Your task to perform on an android device: turn on location history Image 0: 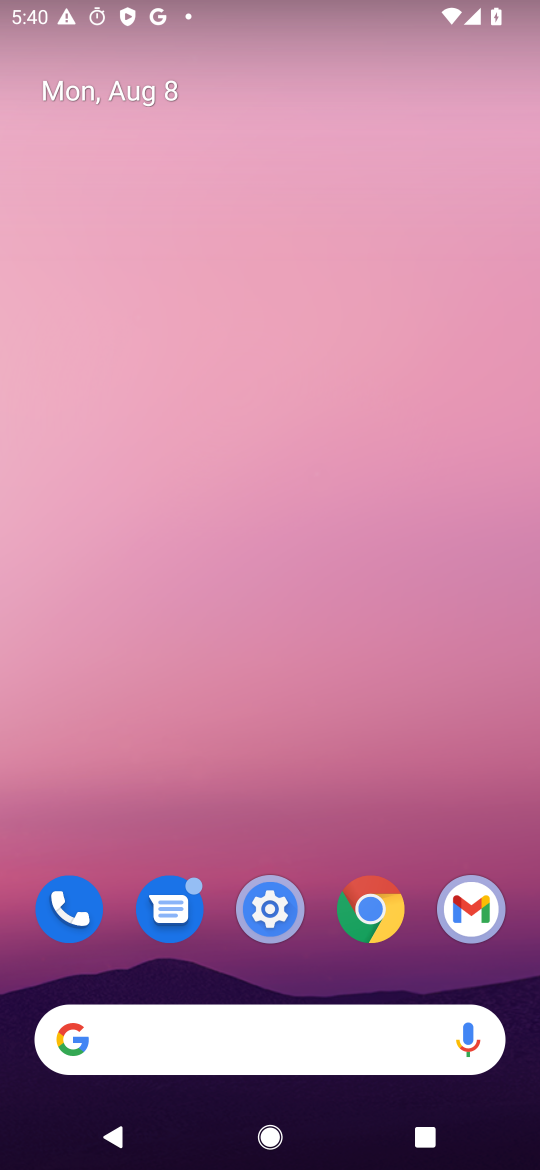
Step 0: click (275, 920)
Your task to perform on an android device: turn on location history Image 1: 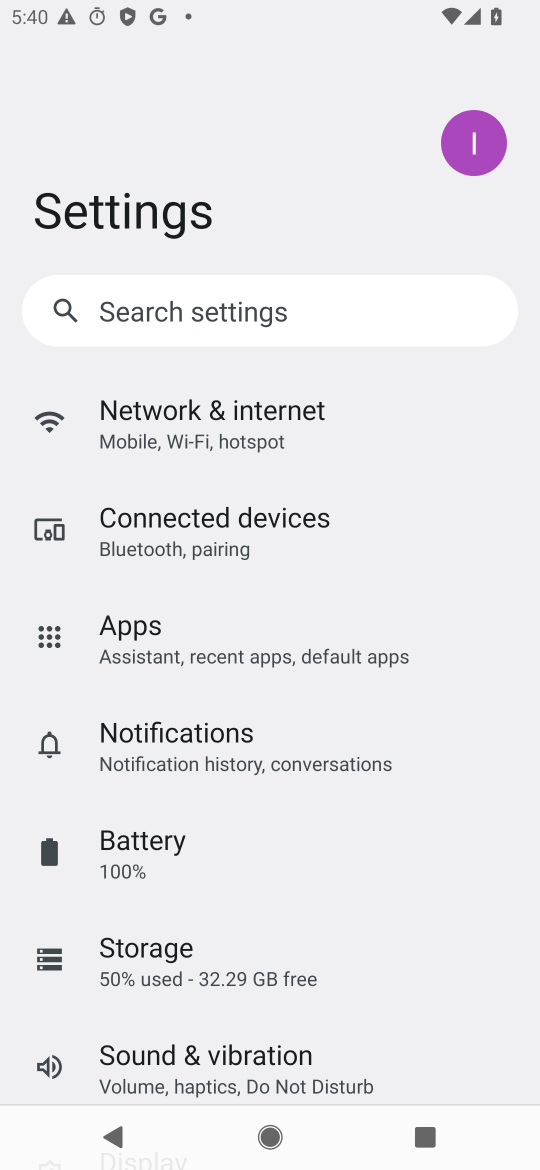
Step 1: drag from (254, 1019) to (366, 343)
Your task to perform on an android device: turn on location history Image 2: 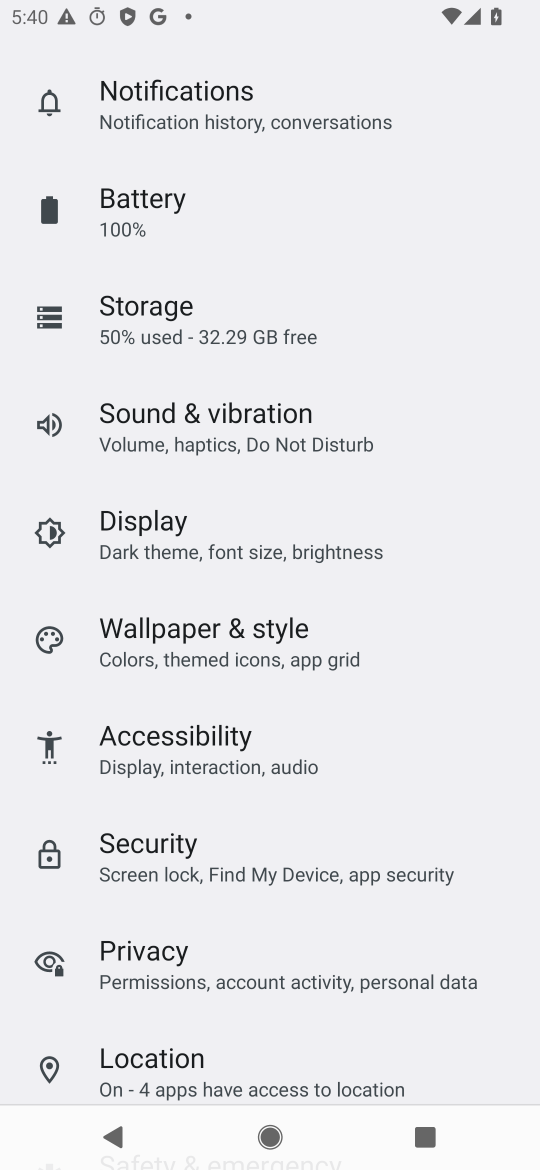
Step 2: click (215, 1071)
Your task to perform on an android device: turn on location history Image 3: 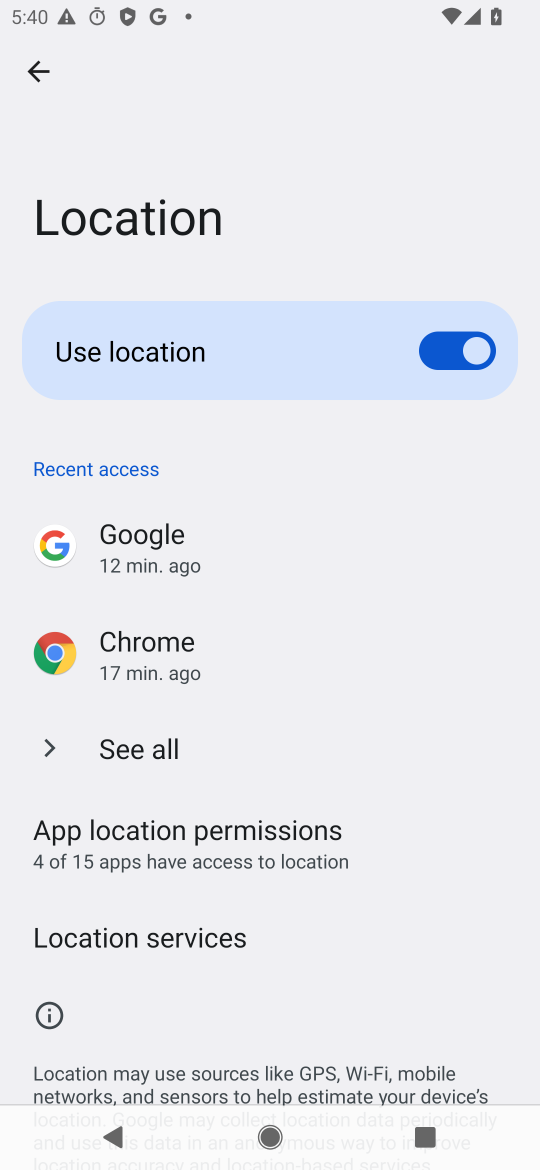
Step 3: drag from (261, 950) to (397, 442)
Your task to perform on an android device: turn on location history Image 4: 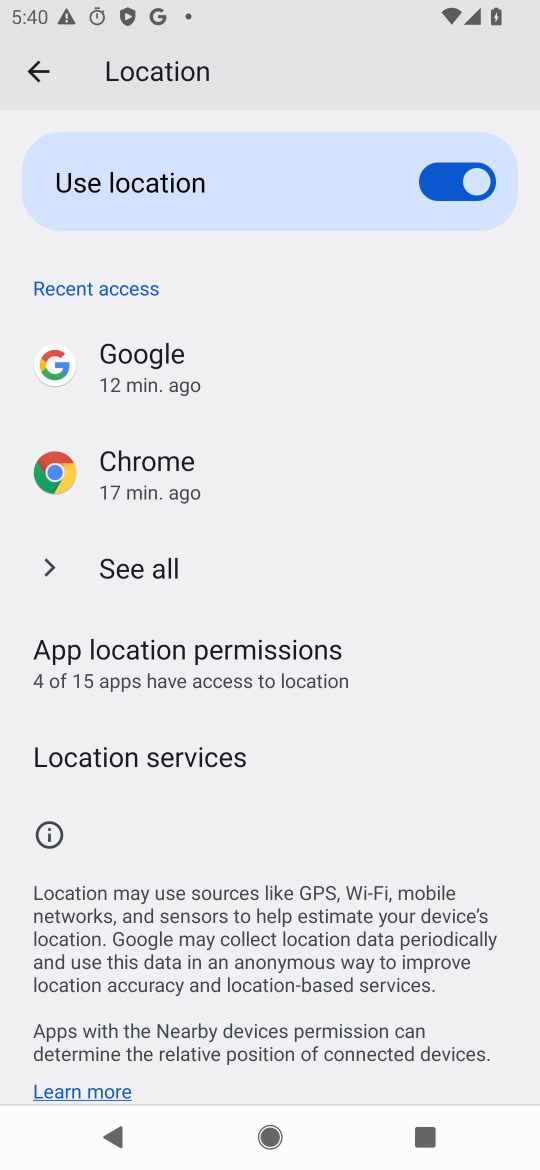
Step 4: click (200, 736)
Your task to perform on an android device: turn on location history Image 5: 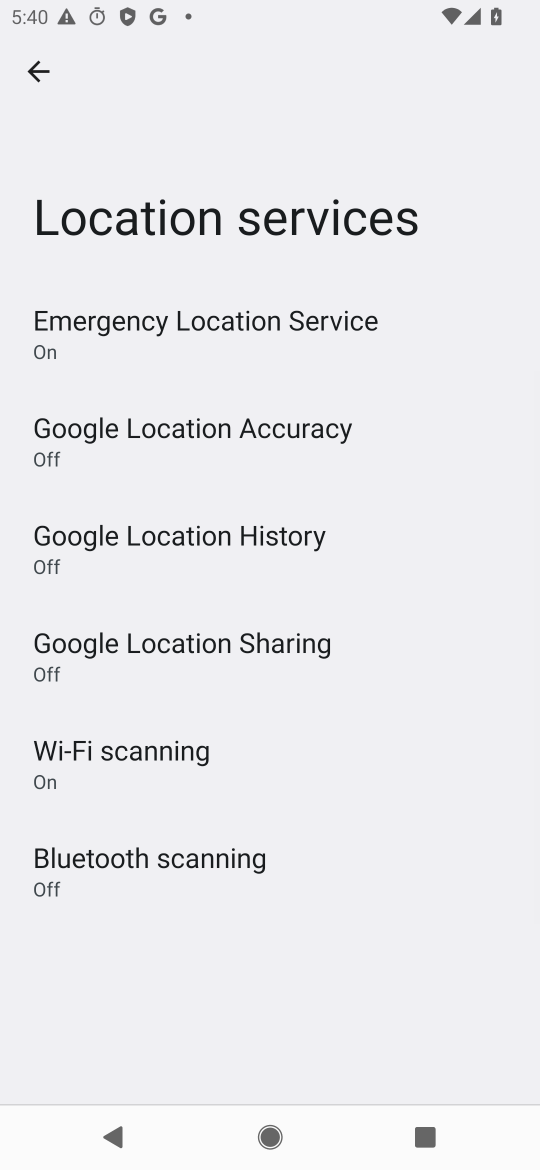
Step 5: drag from (227, 1033) to (366, 608)
Your task to perform on an android device: turn on location history Image 6: 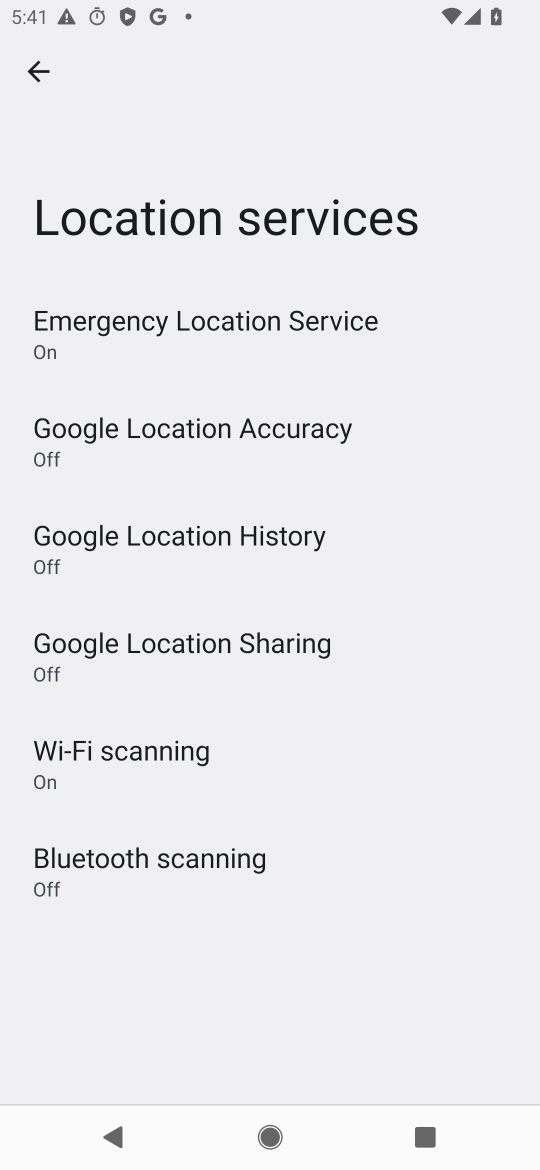
Step 6: click (257, 540)
Your task to perform on an android device: turn on location history Image 7: 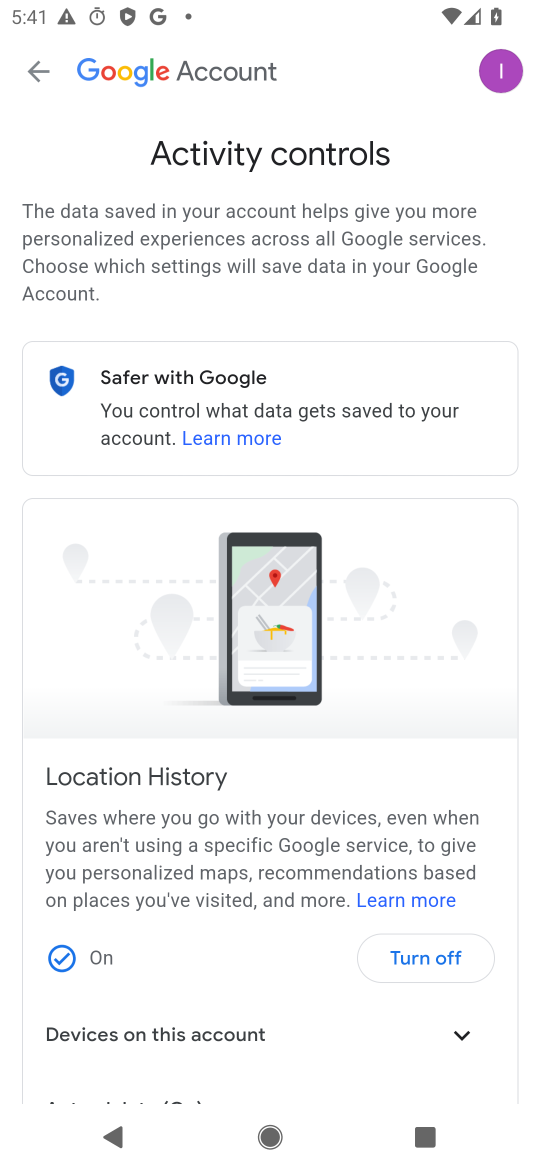
Step 7: task complete